Your task to perform on an android device: remove spam from my inbox in the gmail app Image 0: 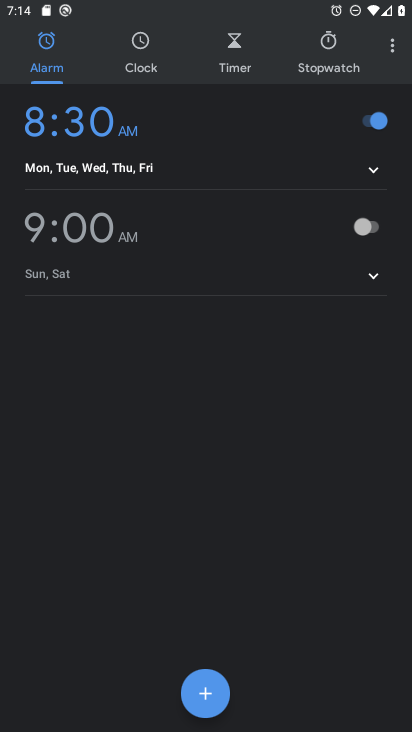
Step 0: press home button
Your task to perform on an android device: remove spam from my inbox in the gmail app Image 1: 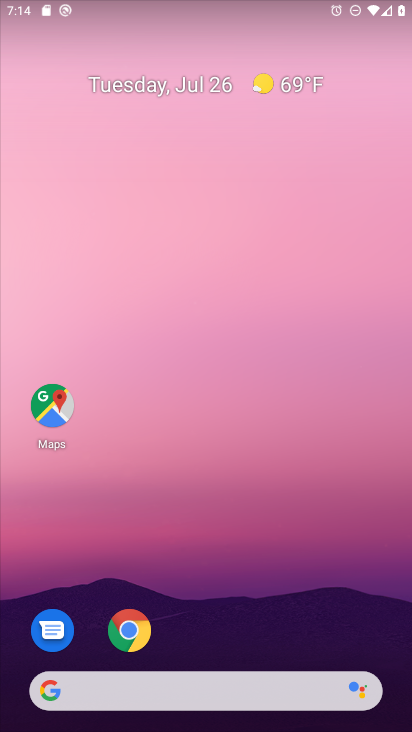
Step 1: drag from (255, 637) to (243, 185)
Your task to perform on an android device: remove spam from my inbox in the gmail app Image 2: 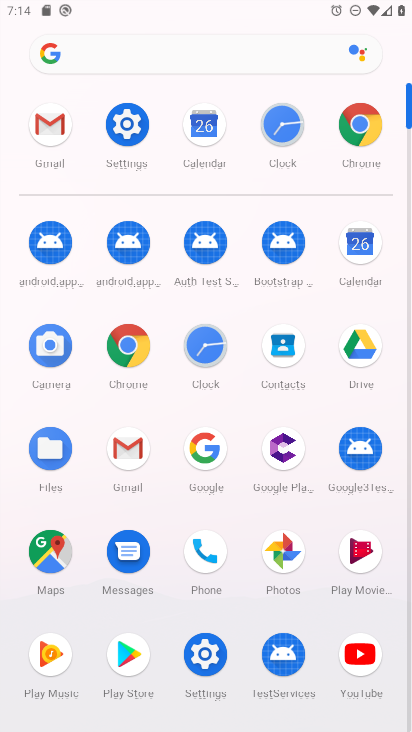
Step 2: click (137, 459)
Your task to perform on an android device: remove spam from my inbox in the gmail app Image 3: 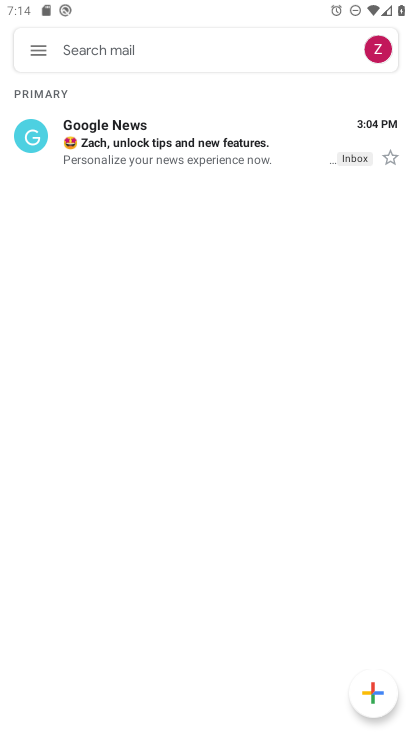
Step 3: click (34, 60)
Your task to perform on an android device: remove spam from my inbox in the gmail app Image 4: 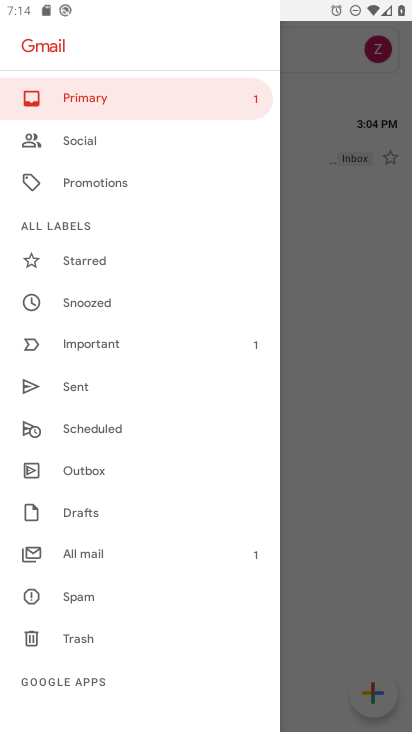
Step 4: click (104, 601)
Your task to perform on an android device: remove spam from my inbox in the gmail app Image 5: 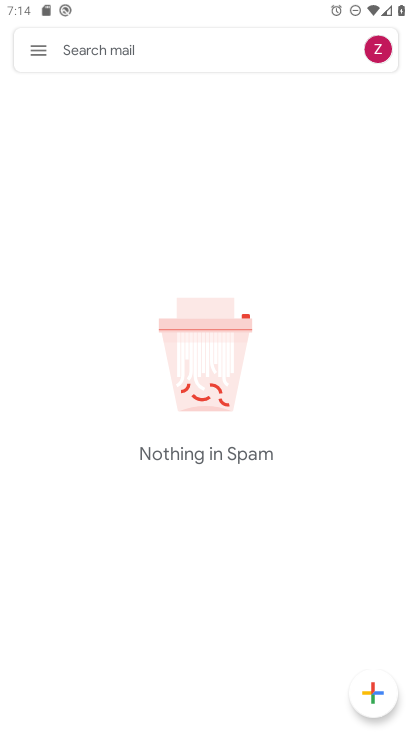
Step 5: task complete